Your task to perform on an android device: open chrome and create a bookmark for the current page Image 0: 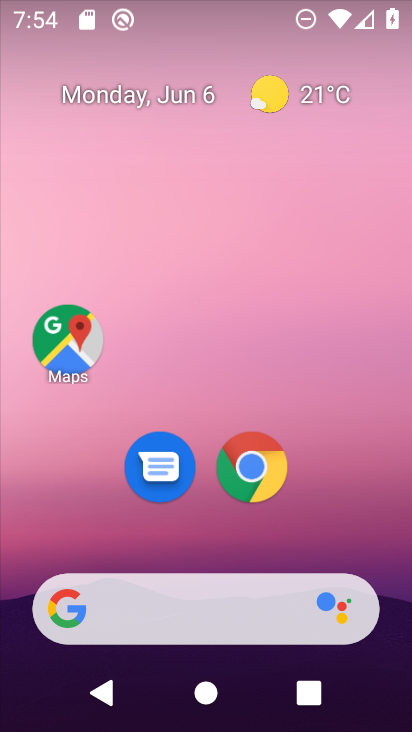
Step 0: drag from (357, 538) to (349, 182)
Your task to perform on an android device: open chrome and create a bookmark for the current page Image 1: 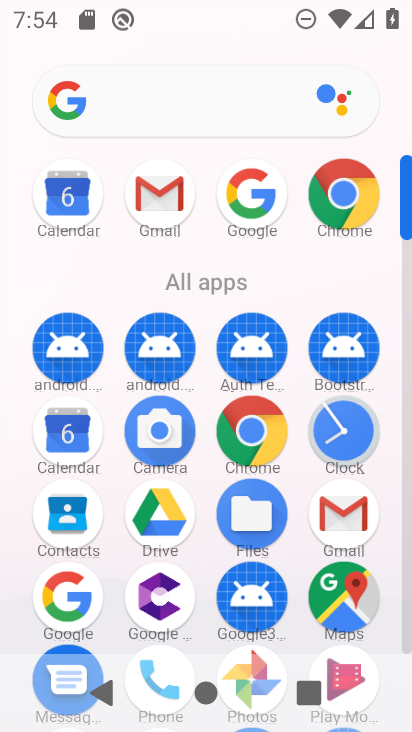
Step 1: click (266, 435)
Your task to perform on an android device: open chrome and create a bookmark for the current page Image 2: 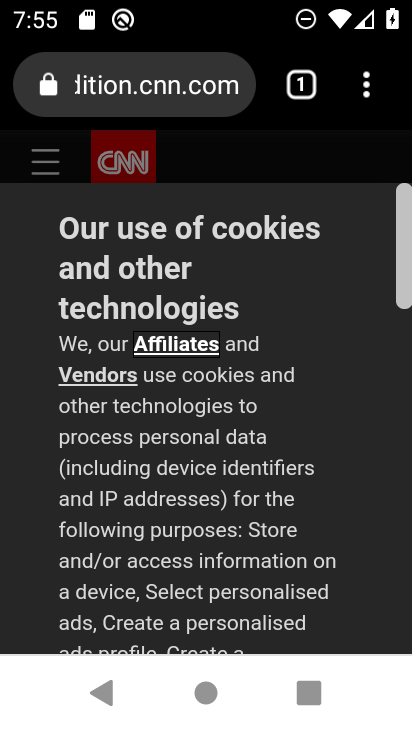
Step 2: click (363, 99)
Your task to perform on an android device: open chrome and create a bookmark for the current page Image 3: 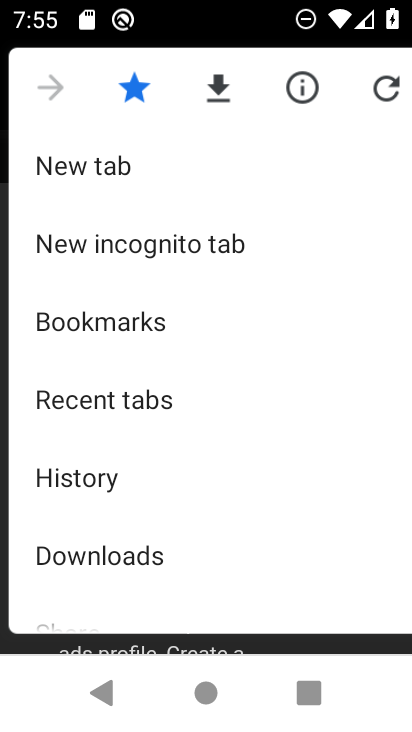
Step 3: task complete